Your task to perform on an android device: What's the weather today? Image 0: 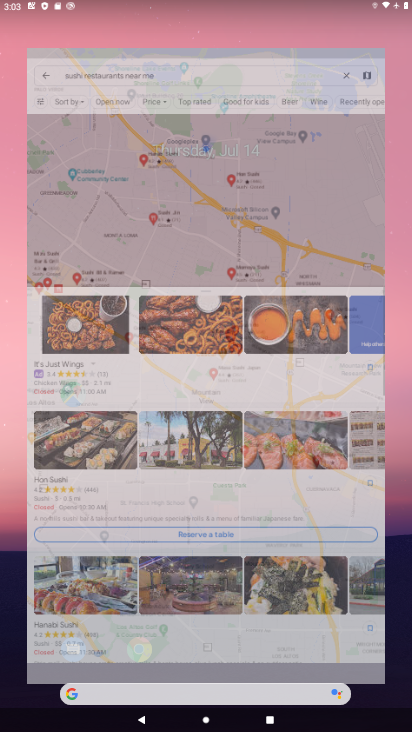
Step 0: press home button
Your task to perform on an android device: What's the weather today? Image 1: 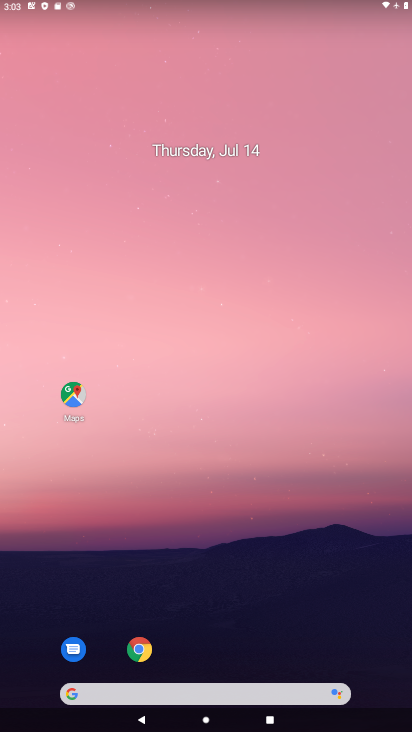
Step 1: click (218, 688)
Your task to perform on an android device: What's the weather today? Image 2: 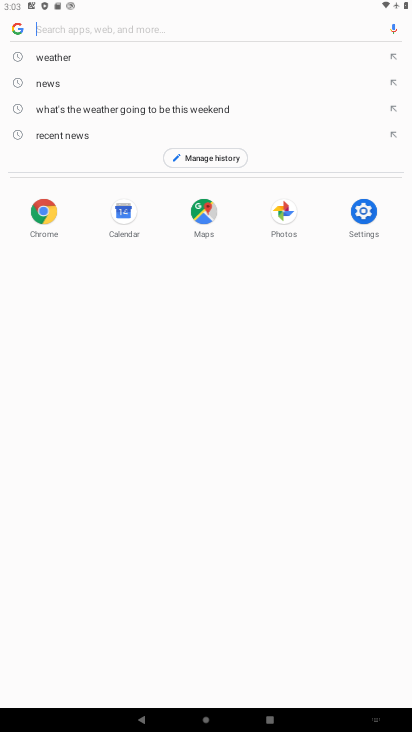
Step 2: click (65, 53)
Your task to perform on an android device: What's the weather today? Image 3: 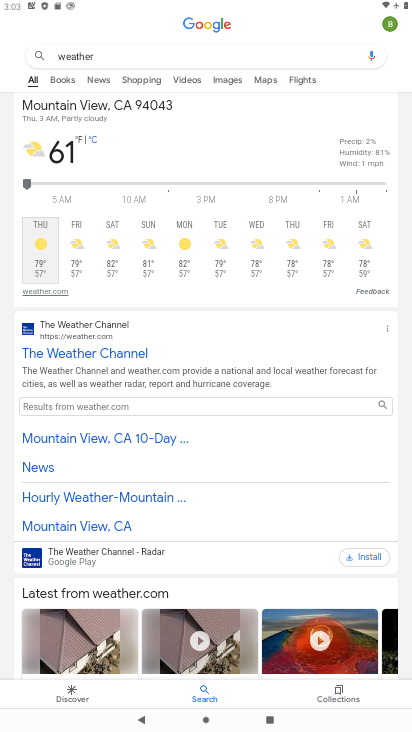
Step 3: click (46, 261)
Your task to perform on an android device: What's the weather today? Image 4: 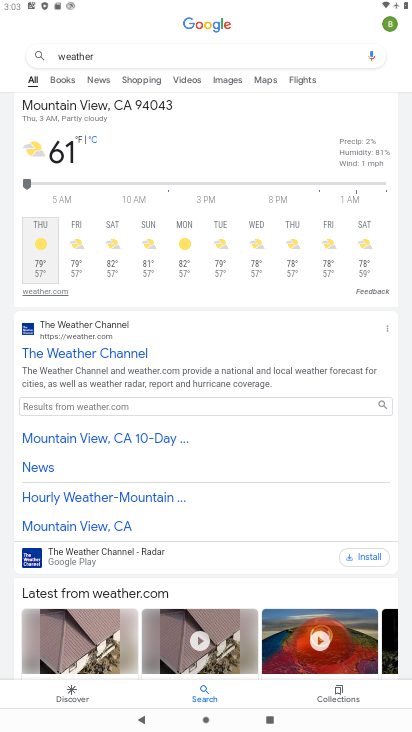
Step 4: task complete